Your task to perform on an android device: Open Maps and search for coffee Image 0: 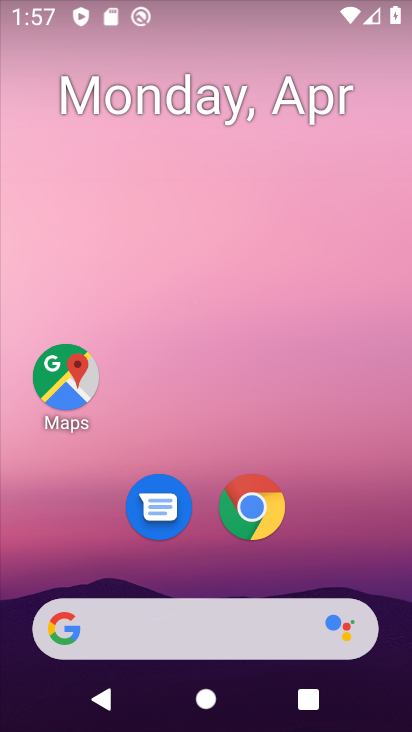
Step 0: click (66, 374)
Your task to perform on an android device: Open Maps and search for coffee Image 1: 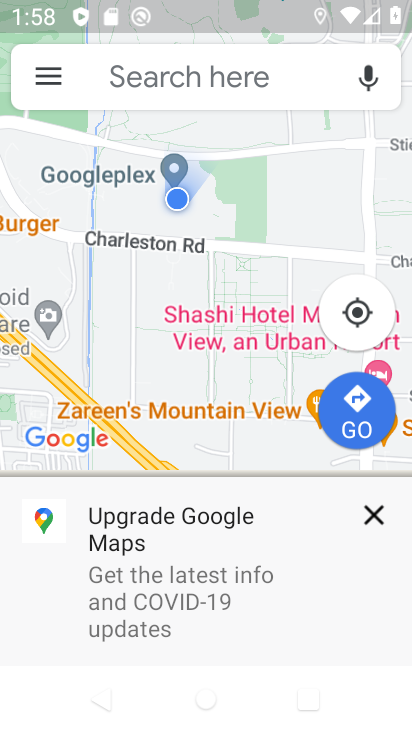
Step 1: click (153, 68)
Your task to perform on an android device: Open Maps and search for coffee Image 2: 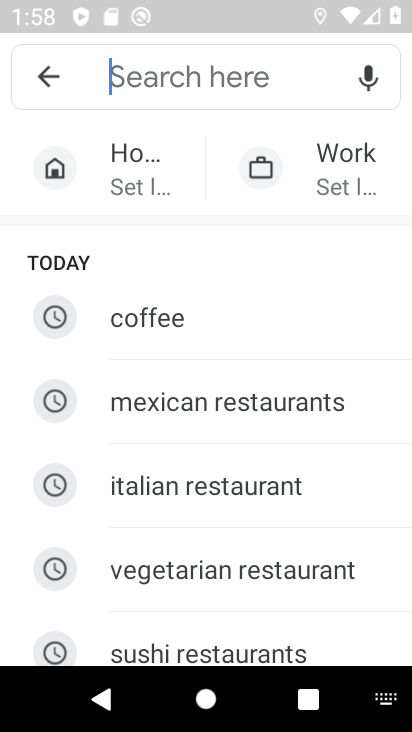
Step 2: type "coffee"
Your task to perform on an android device: Open Maps and search for coffee Image 3: 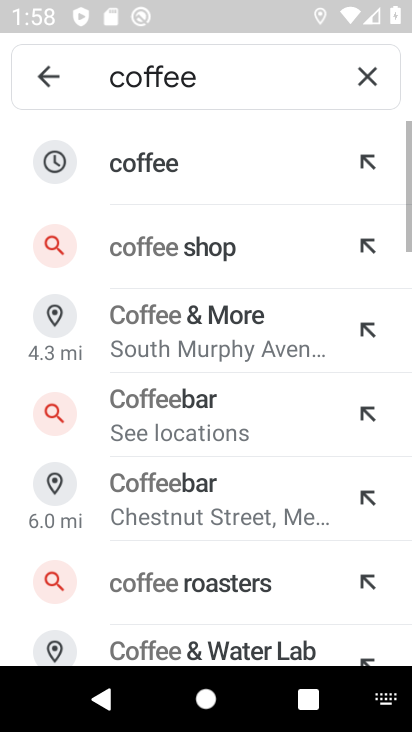
Step 3: click (151, 159)
Your task to perform on an android device: Open Maps and search for coffee Image 4: 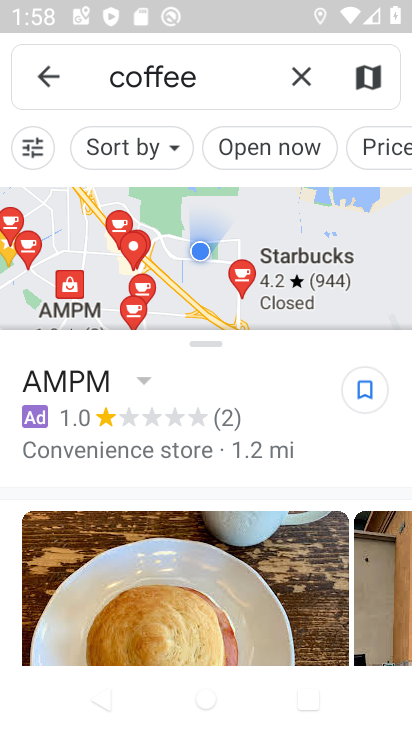
Step 4: task complete